Your task to perform on an android device: Play the last video I watched on Youtube Image 0: 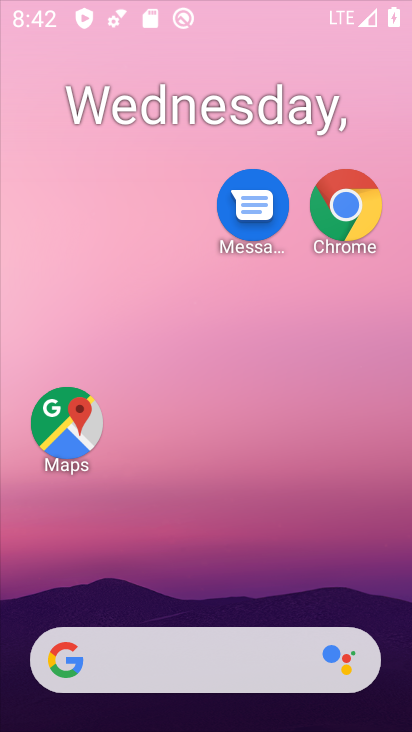
Step 0: click (280, 116)
Your task to perform on an android device: Play the last video I watched on Youtube Image 1: 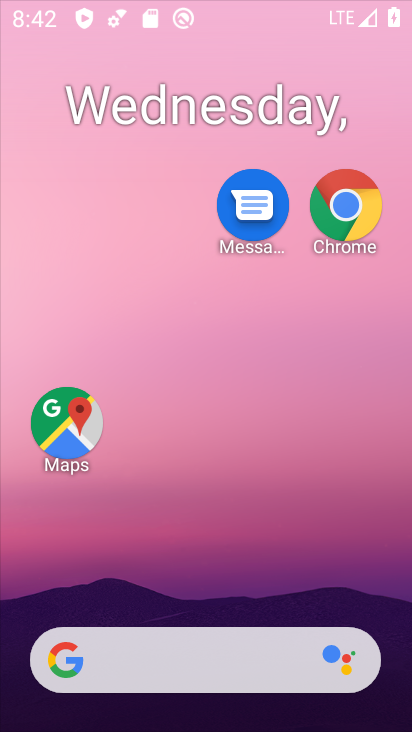
Step 1: drag from (205, 401) to (191, 83)
Your task to perform on an android device: Play the last video I watched on Youtube Image 2: 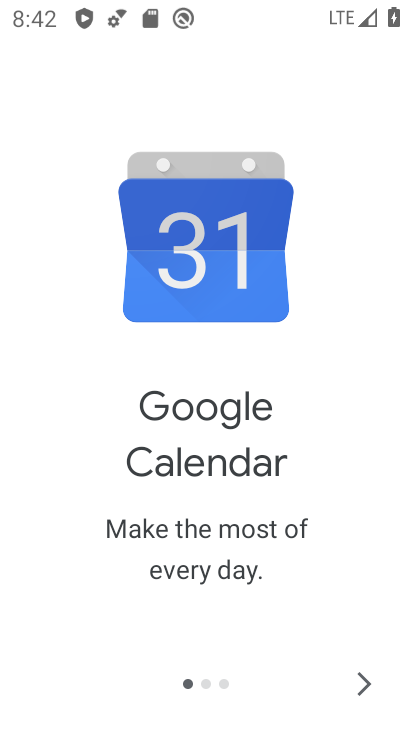
Step 2: press home button
Your task to perform on an android device: Play the last video I watched on Youtube Image 3: 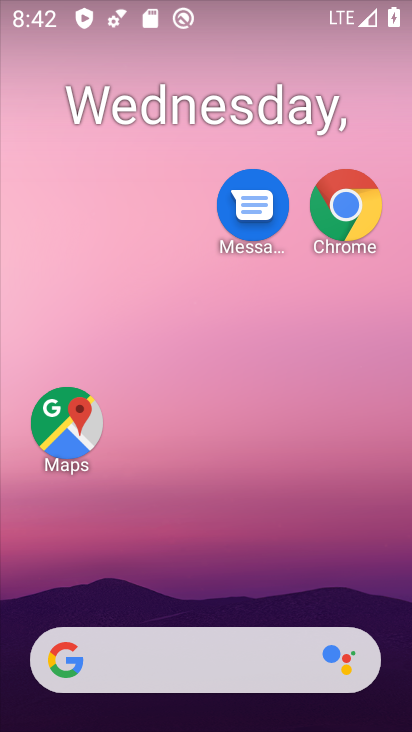
Step 3: drag from (215, 601) to (191, 43)
Your task to perform on an android device: Play the last video I watched on Youtube Image 4: 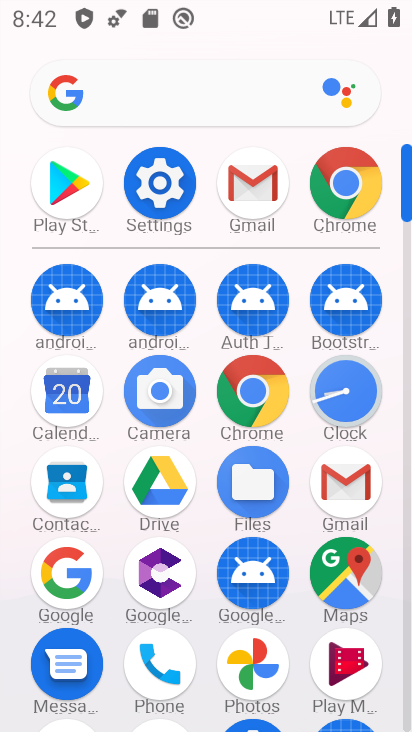
Step 4: drag from (204, 706) to (223, 172)
Your task to perform on an android device: Play the last video I watched on Youtube Image 5: 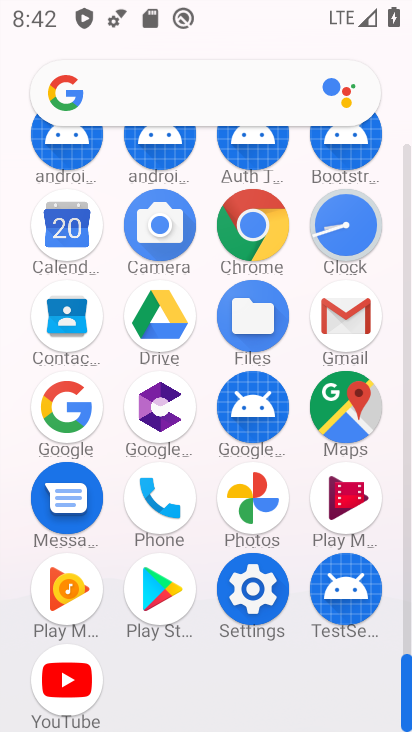
Step 5: drag from (106, 645) to (115, 353)
Your task to perform on an android device: Play the last video I watched on Youtube Image 6: 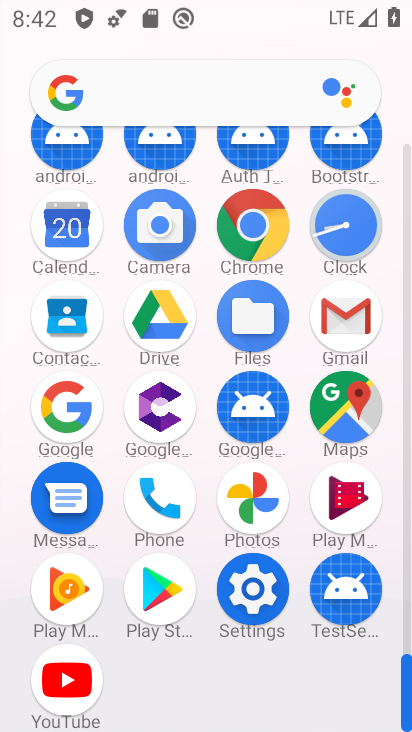
Step 6: click (54, 699)
Your task to perform on an android device: Play the last video I watched on Youtube Image 7: 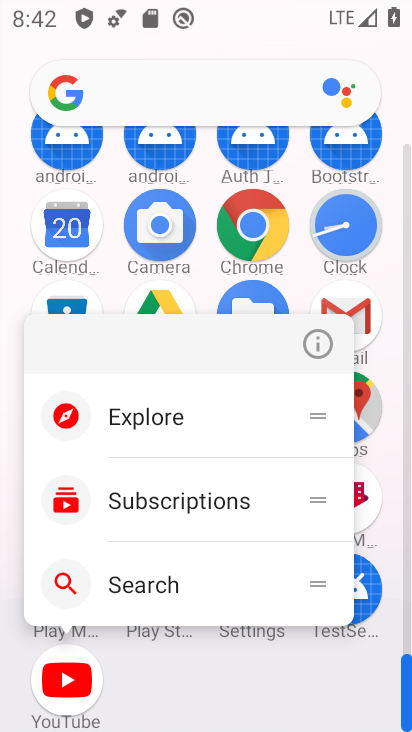
Step 7: click (310, 335)
Your task to perform on an android device: Play the last video I watched on Youtube Image 8: 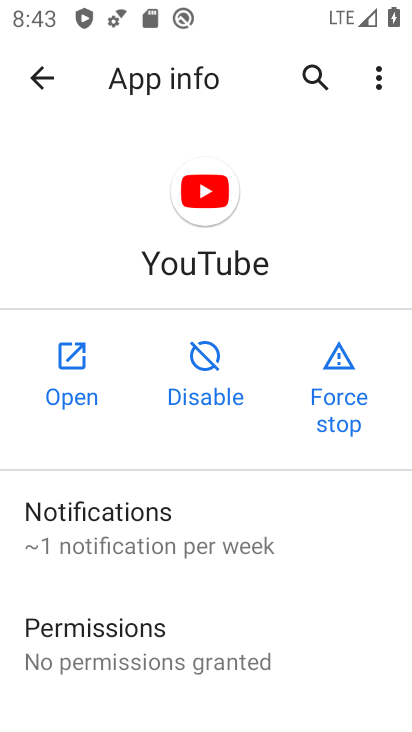
Step 8: click (87, 351)
Your task to perform on an android device: Play the last video I watched on Youtube Image 9: 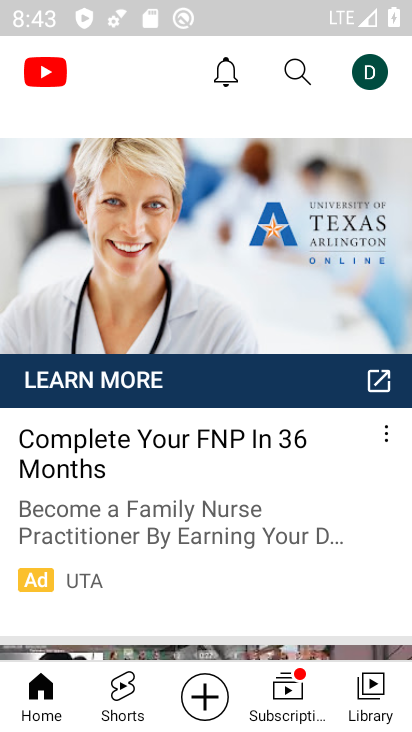
Step 9: click (364, 684)
Your task to perform on an android device: Play the last video I watched on Youtube Image 10: 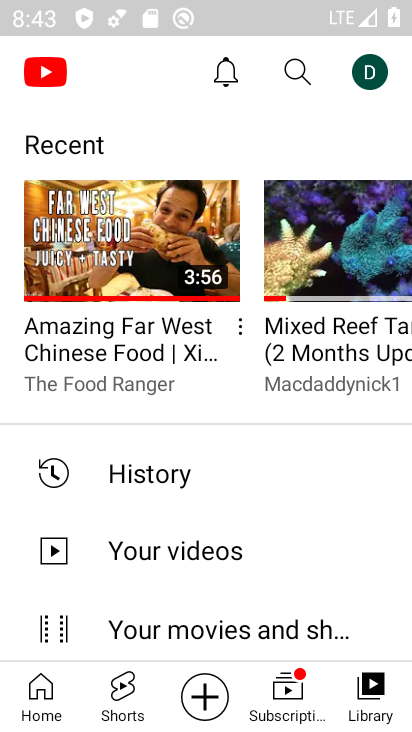
Step 10: click (155, 279)
Your task to perform on an android device: Play the last video I watched on Youtube Image 11: 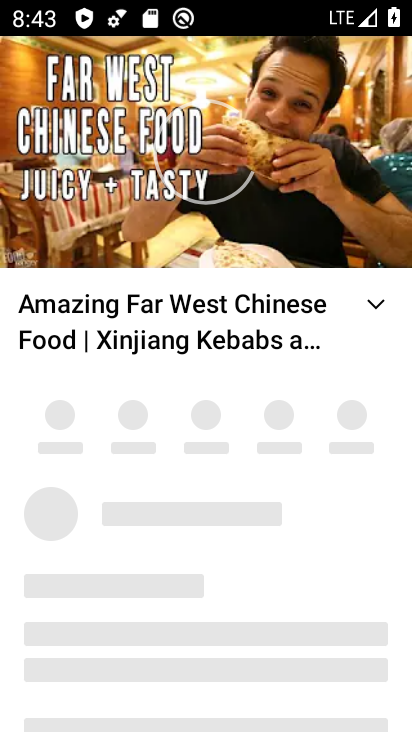
Step 11: task complete